Your task to perform on an android device: turn off data saver in the chrome app Image 0: 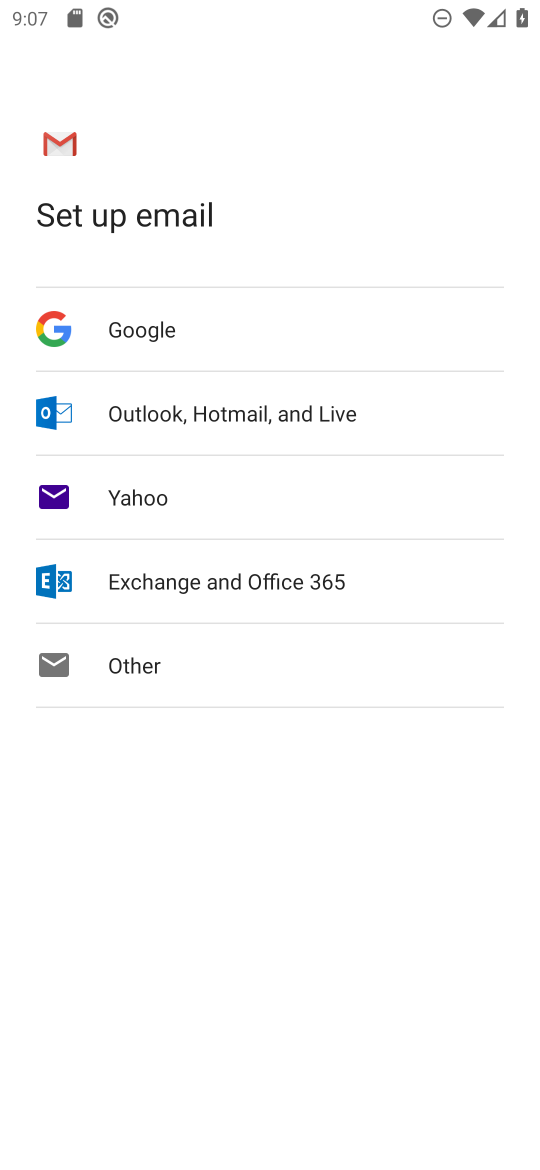
Step 0: press home button
Your task to perform on an android device: turn off data saver in the chrome app Image 1: 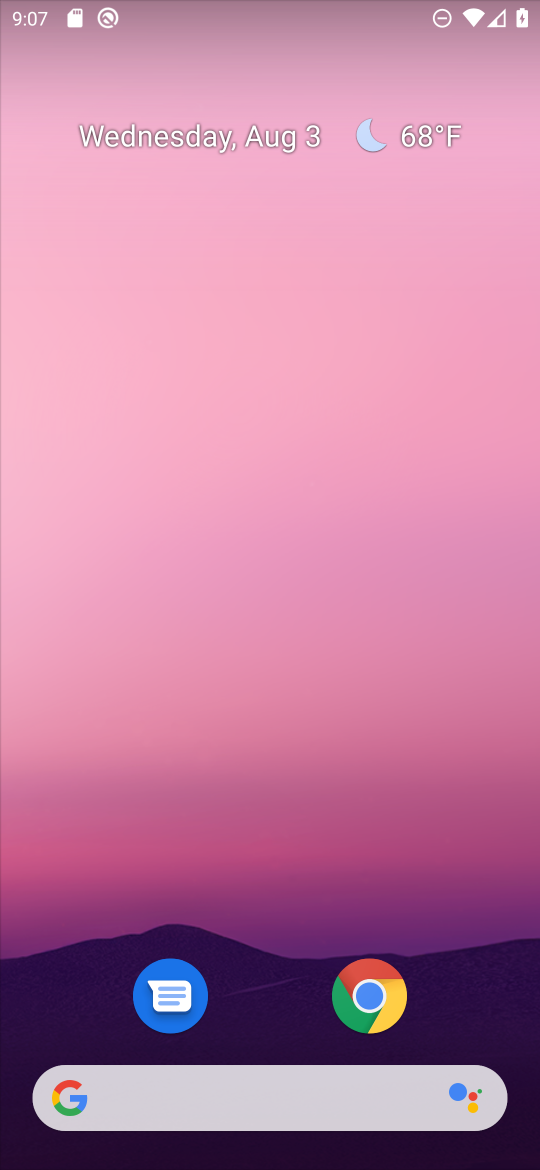
Step 1: click (377, 1000)
Your task to perform on an android device: turn off data saver in the chrome app Image 2: 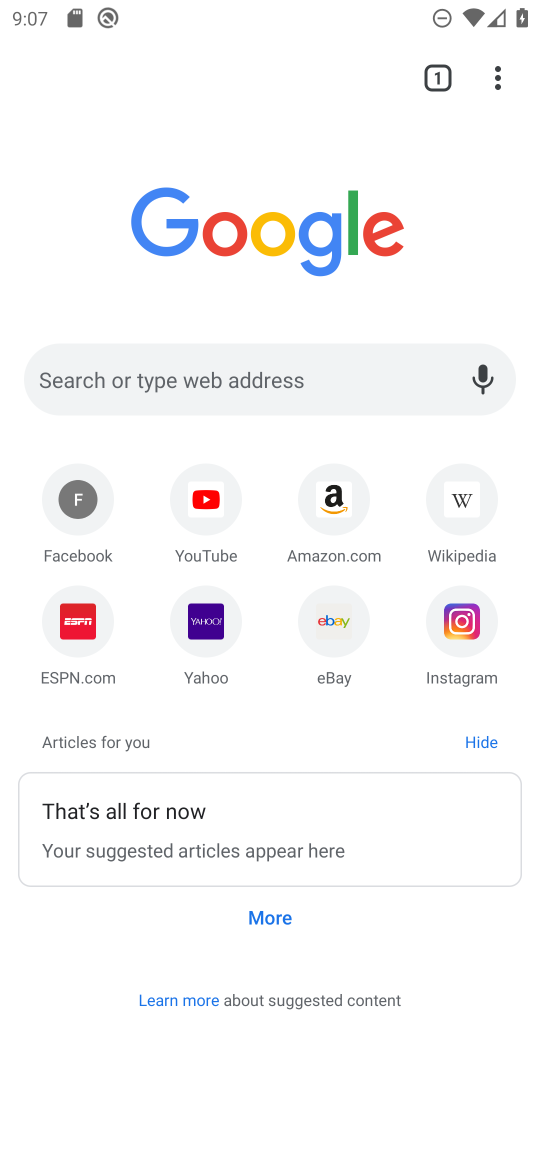
Step 2: click (500, 64)
Your task to perform on an android device: turn off data saver in the chrome app Image 3: 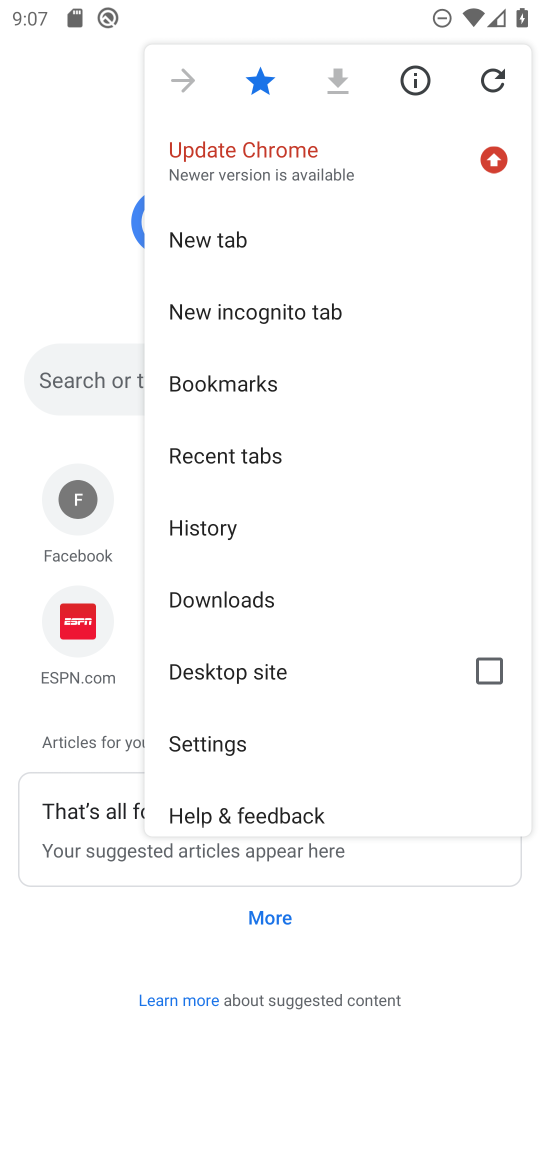
Step 3: click (240, 744)
Your task to perform on an android device: turn off data saver in the chrome app Image 4: 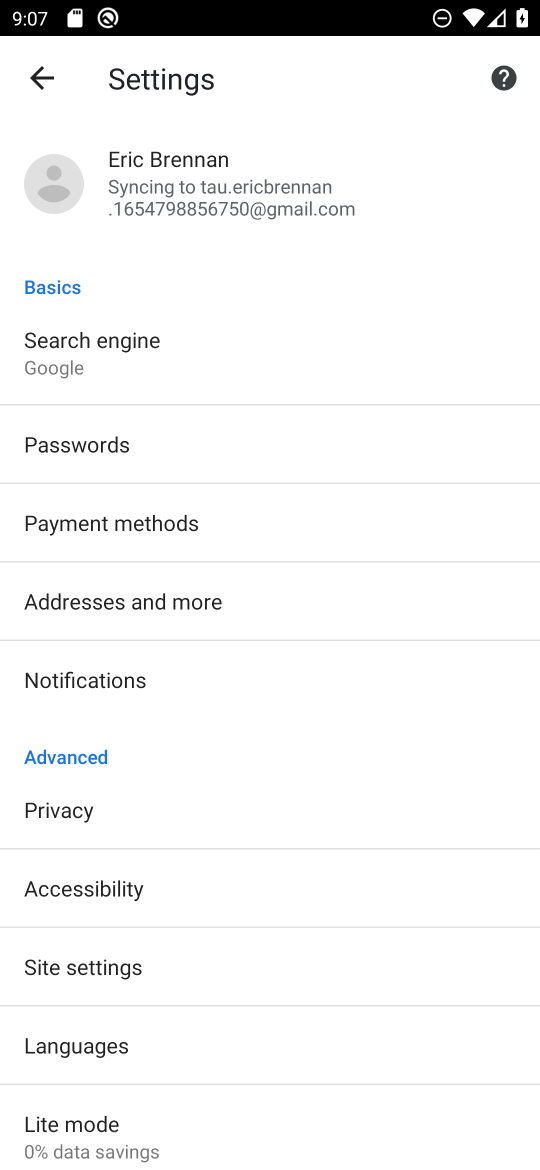
Step 4: click (138, 1131)
Your task to perform on an android device: turn off data saver in the chrome app Image 5: 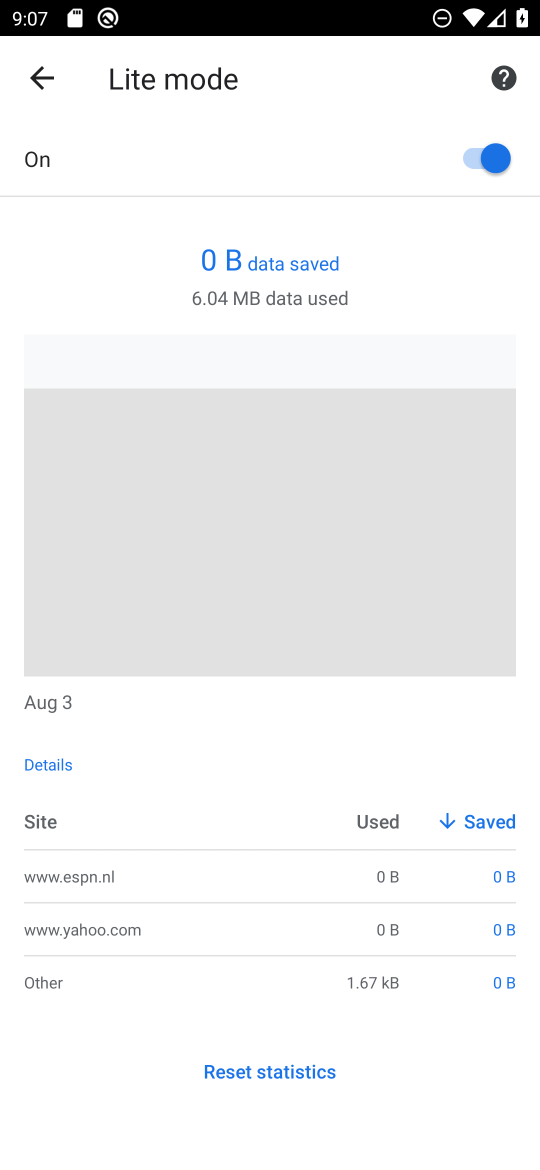
Step 5: click (477, 149)
Your task to perform on an android device: turn off data saver in the chrome app Image 6: 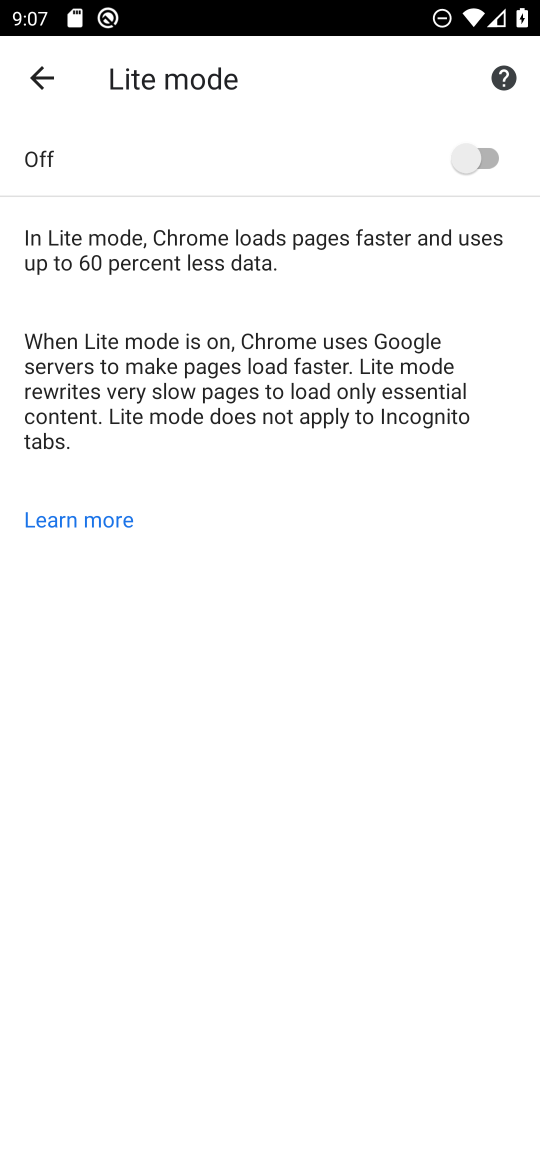
Step 6: task complete